Your task to perform on an android device: remove spam from my inbox in the gmail app Image 0: 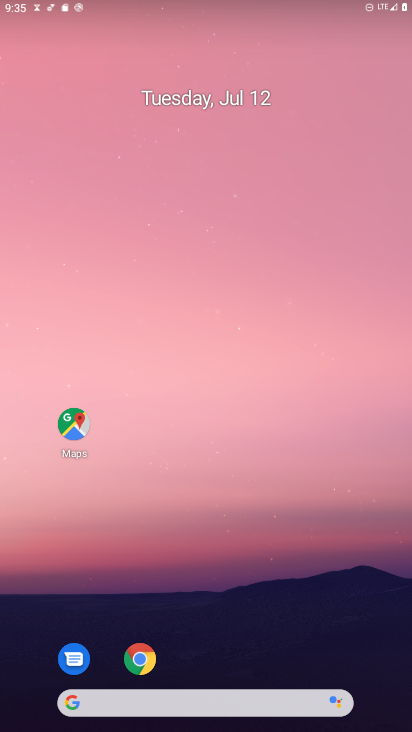
Step 0: drag from (212, 700) to (253, 285)
Your task to perform on an android device: remove spam from my inbox in the gmail app Image 1: 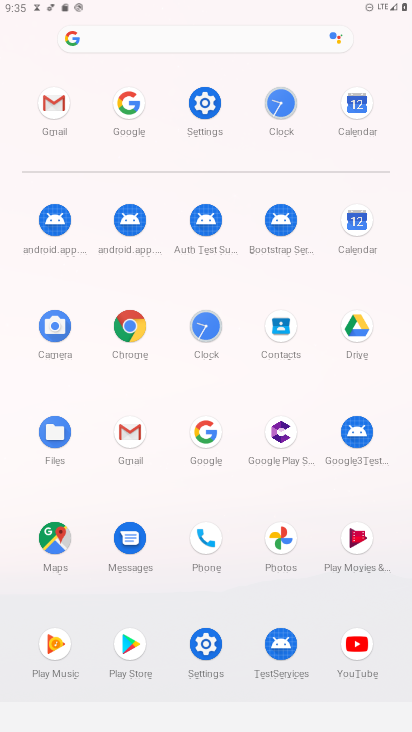
Step 1: click (55, 102)
Your task to perform on an android device: remove spam from my inbox in the gmail app Image 2: 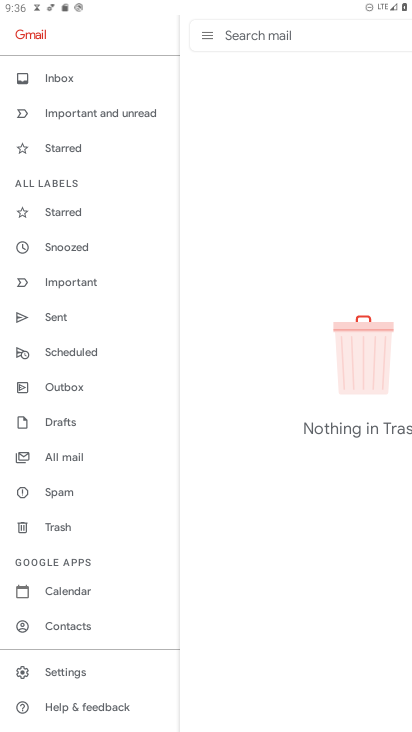
Step 2: click (66, 491)
Your task to perform on an android device: remove spam from my inbox in the gmail app Image 3: 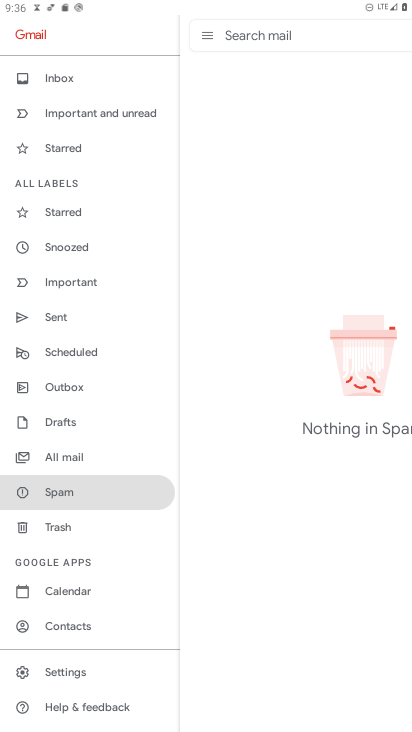
Step 3: task complete